Your task to perform on an android device: turn on priority inbox in the gmail app Image 0: 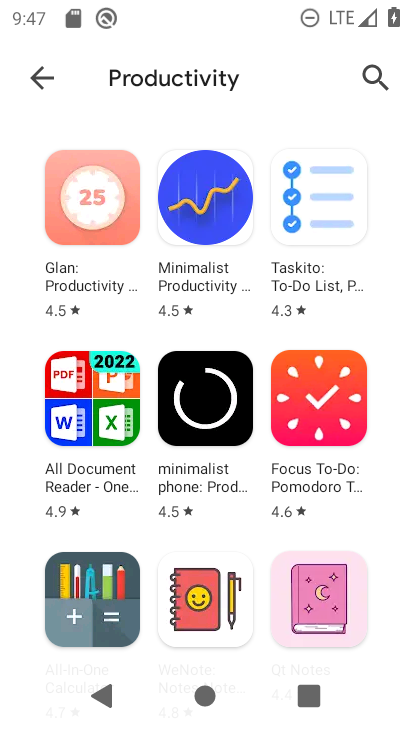
Step 0: press home button
Your task to perform on an android device: turn on priority inbox in the gmail app Image 1: 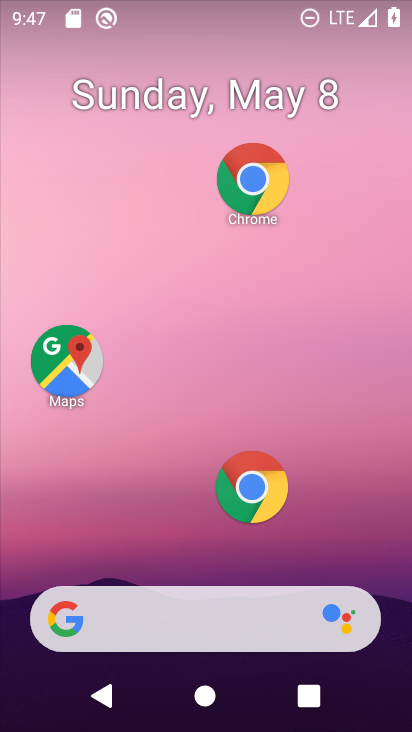
Step 1: drag from (167, 465) to (160, 48)
Your task to perform on an android device: turn on priority inbox in the gmail app Image 2: 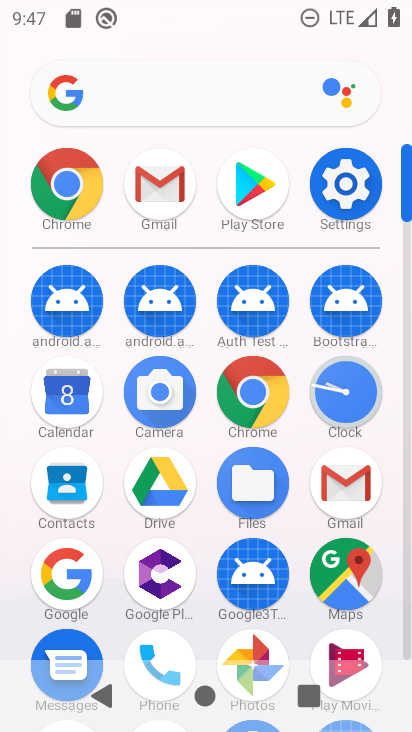
Step 2: click (163, 173)
Your task to perform on an android device: turn on priority inbox in the gmail app Image 3: 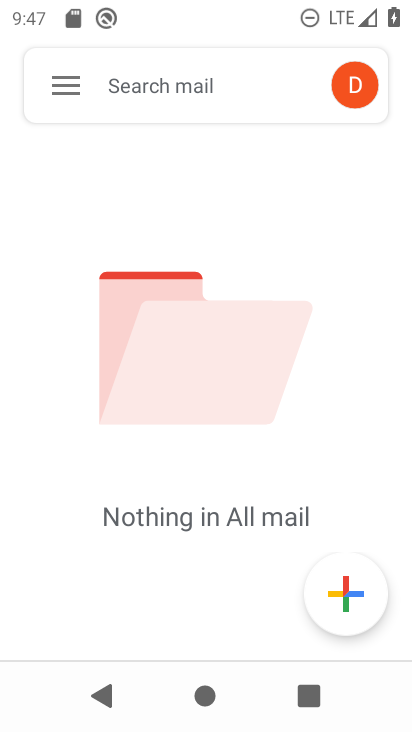
Step 3: click (77, 87)
Your task to perform on an android device: turn on priority inbox in the gmail app Image 4: 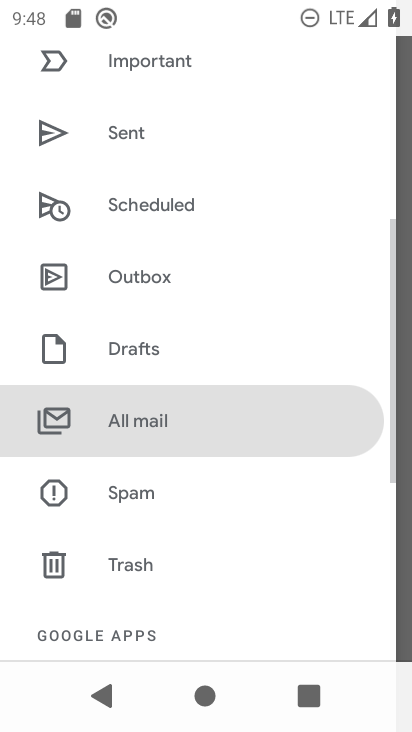
Step 4: drag from (214, 529) to (203, 214)
Your task to perform on an android device: turn on priority inbox in the gmail app Image 5: 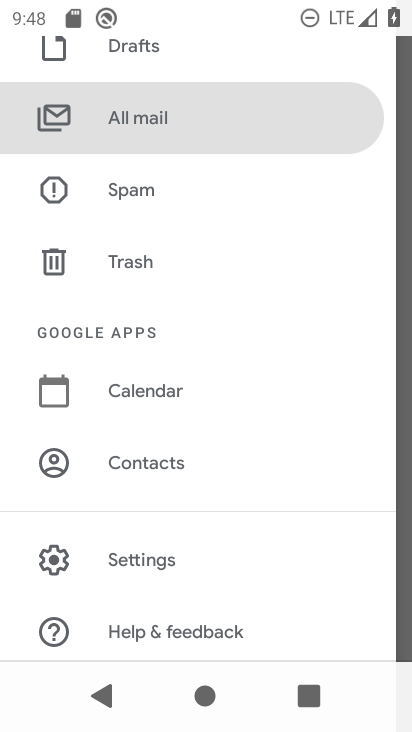
Step 5: click (151, 557)
Your task to perform on an android device: turn on priority inbox in the gmail app Image 6: 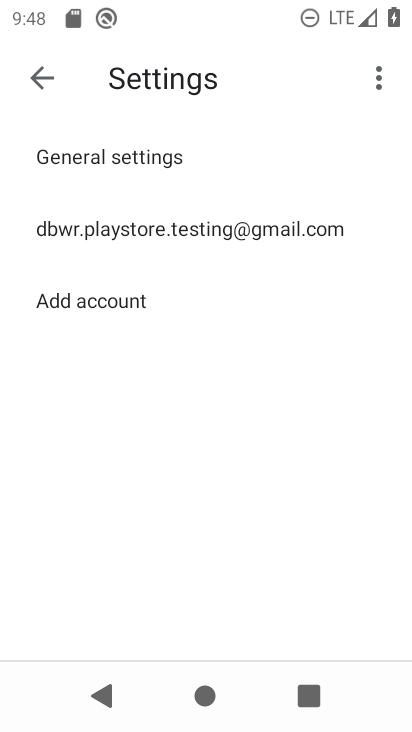
Step 6: click (142, 224)
Your task to perform on an android device: turn on priority inbox in the gmail app Image 7: 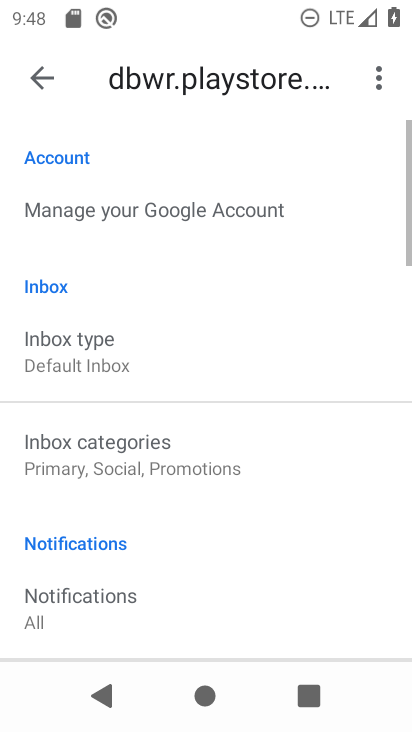
Step 7: click (92, 333)
Your task to perform on an android device: turn on priority inbox in the gmail app Image 8: 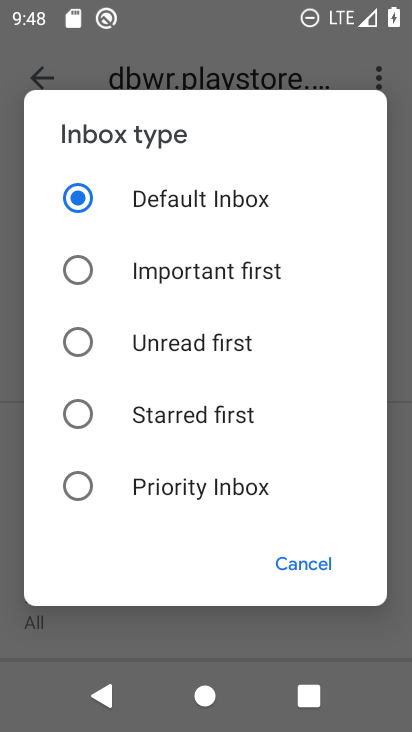
Step 8: click (108, 479)
Your task to perform on an android device: turn on priority inbox in the gmail app Image 9: 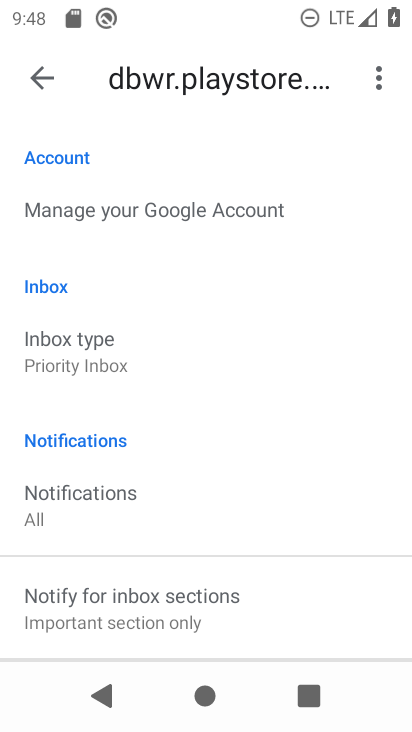
Step 9: task complete